Your task to perform on an android device: Go to Yahoo.com Image 0: 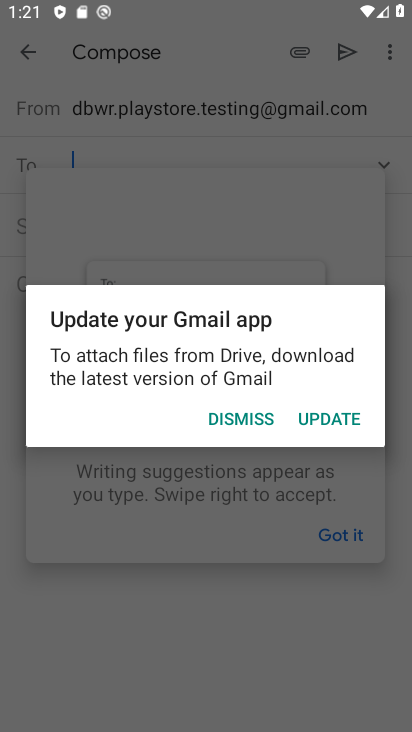
Step 0: press home button
Your task to perform on an android device: Go to Yahoo.com Image 1: 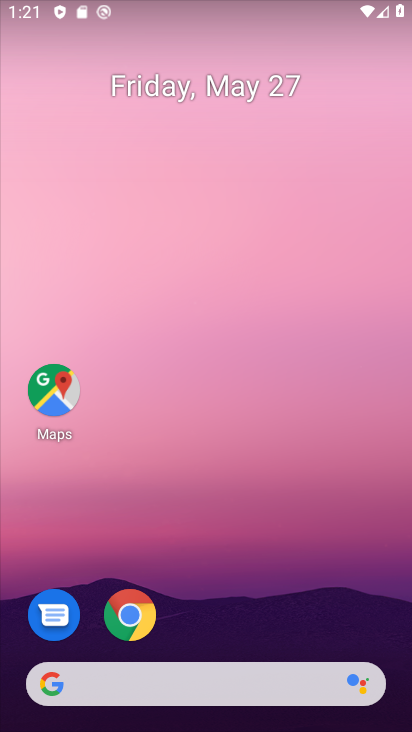
Step 1: click (136, 610)
Your task to perform on an android device: Go to Yahoo.com Image 2: 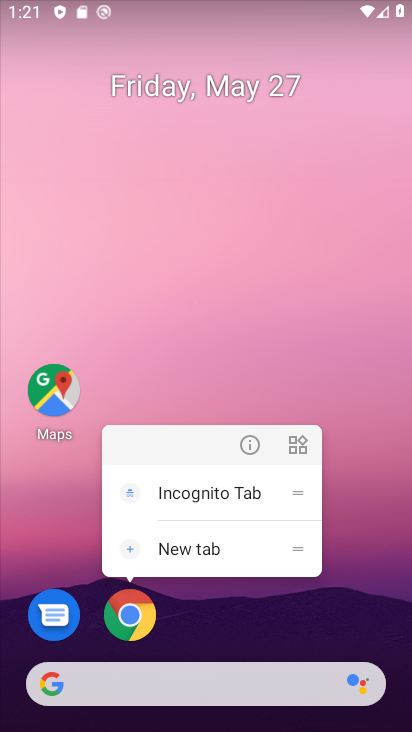
Step 2: click (134, 619)
Your task to perform on an android device: Go to Yahoo.com Image 3: 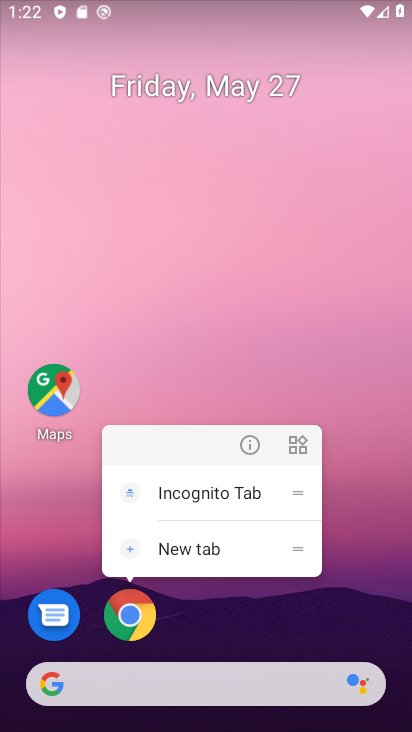
Step 3: click (130, 619)
Your task to perform on an android device: Go to Yahoo.com Image 4: 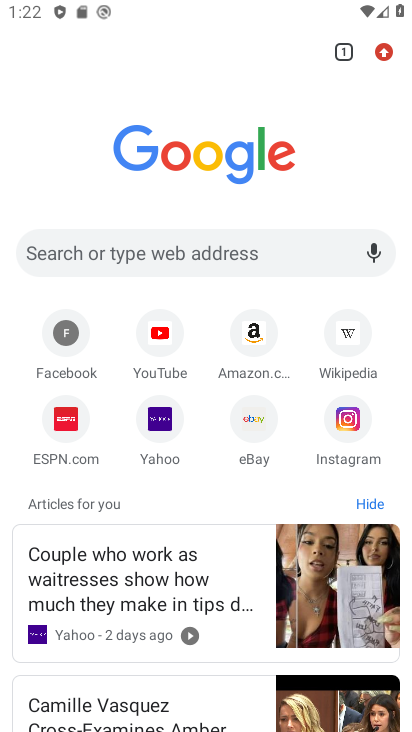
Step 4: click (159, 424)
Your task to perform on an android device: Go to Yahoo.com Image 5: 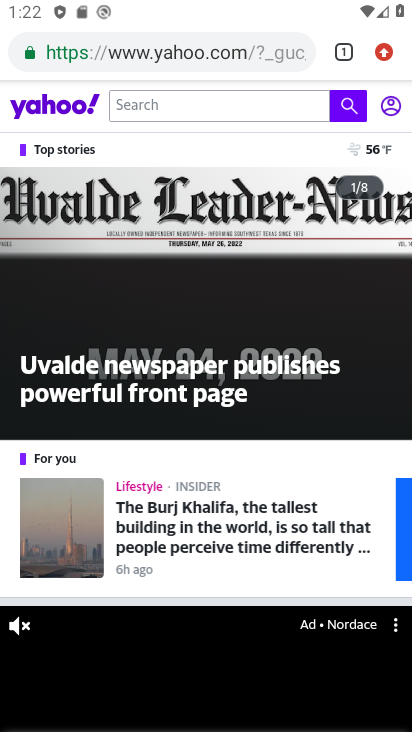
Step 5: task complete